Your task to perform on an android device: change timer sound Image 0: 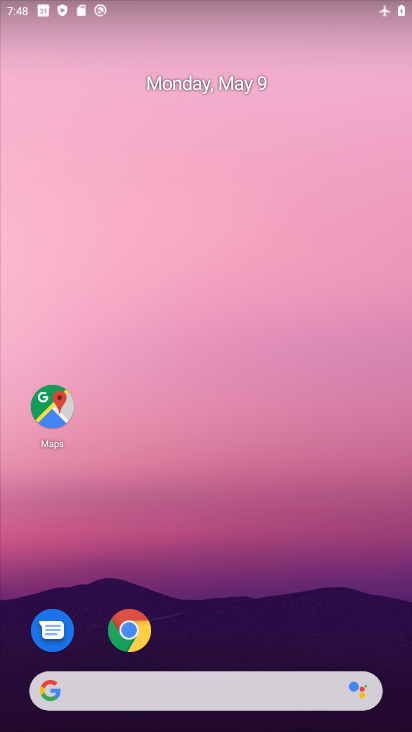
Step 0: drag from (310, 581) to (252, 165)
Your task to perform on an android device: change timer sound Image 1: 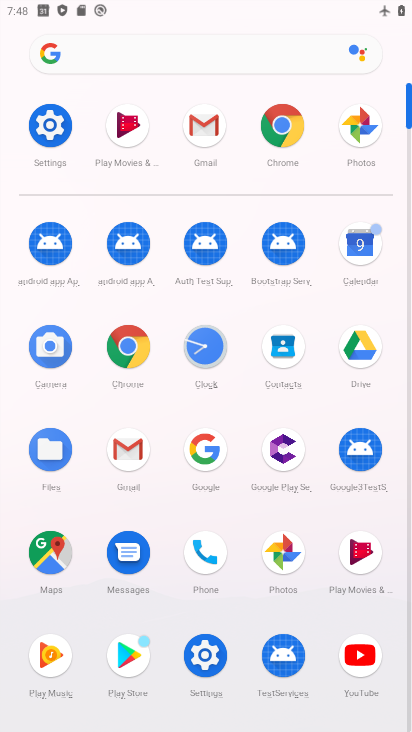
Step 1: click (207, 360)
Your task to perform on an android device: change timer sound Image 2: 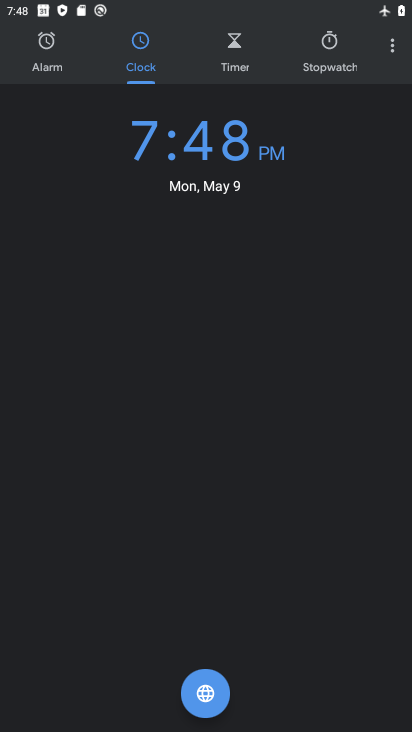
Step 2: click (388, 48)
Your task to perform on an android device: change timer sound Image 3: 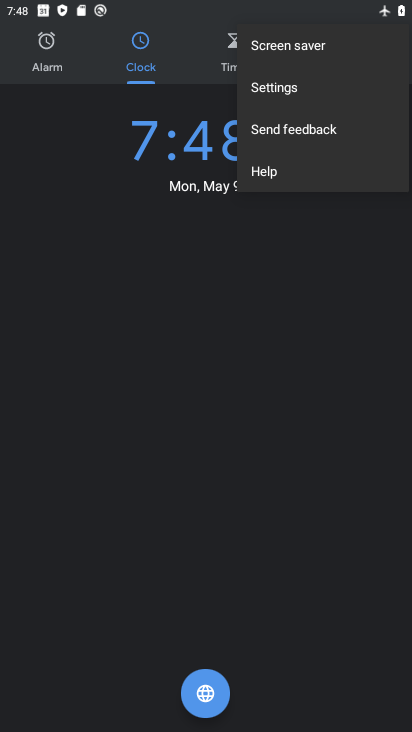
Step 3: click (285, 90)
Your task to perform on an android device: change timer sound Image 4: 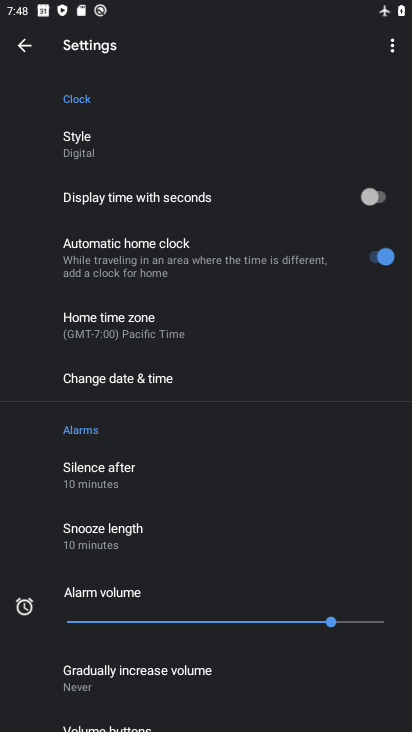
Step 4: drag from (150, 558) to (127, 256)
Your task to perform on an android device: change timer sound Image 5: 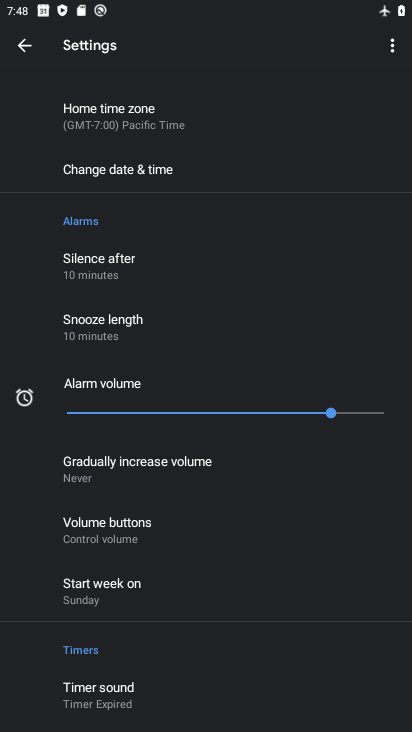
Step 5: click (135, 700)
Your task to perform on an android device: change timer sound Image 6: 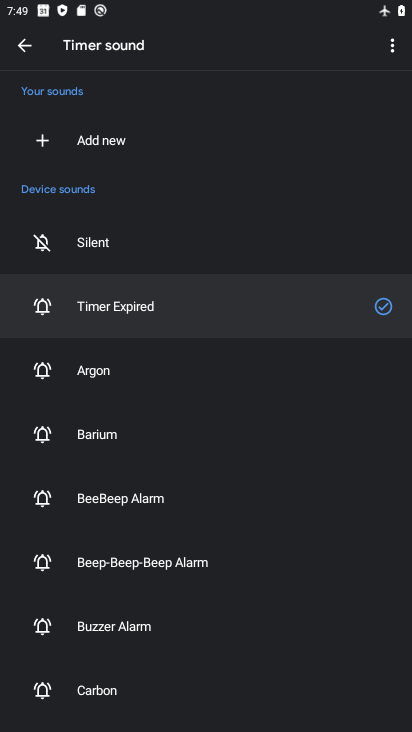
Step 6: click (131, 386)
Your task to perform on an android device: change timer sound Image 7: 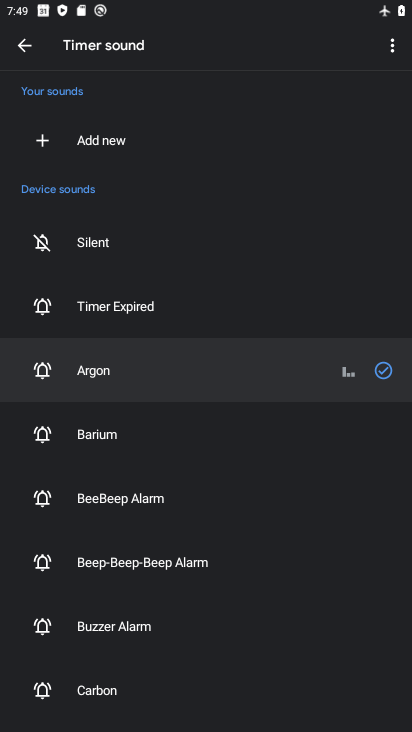
Step 7: task complete